Your task to perform on an android device: Go to location settings Image 0: 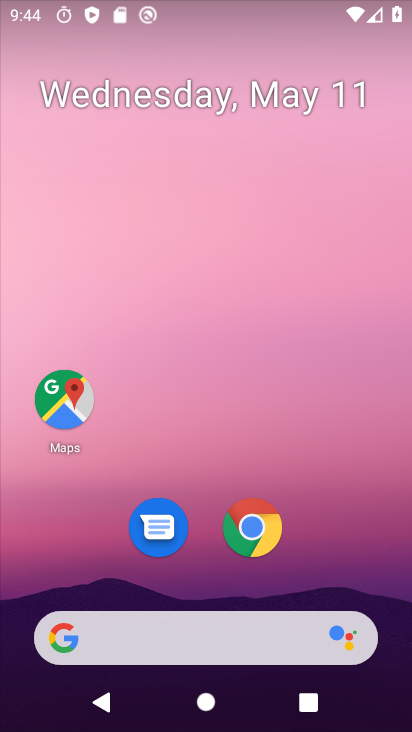
Step 0: drag from (236, 567) to (239, 114)
Your task to perform on an android device: Go to location settings Image 1: 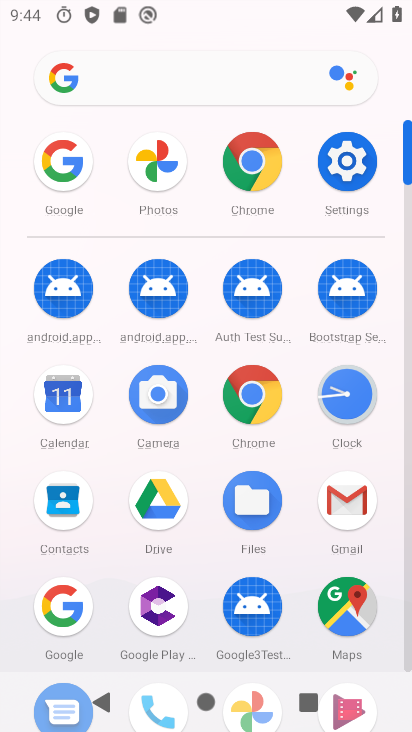
Step 1: click (335, 194)
Your task to perform on an android device: Go to location settings Image 2: 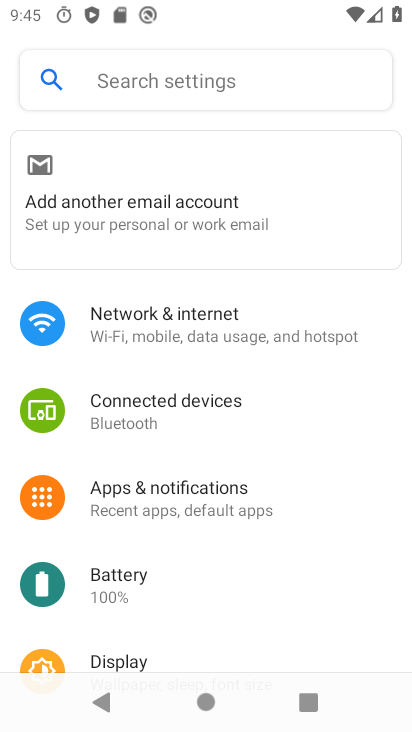
Step 2: drag from (236, 584) to (260, 271)
Your task to perform on an android device: Go to location settings Image 3: 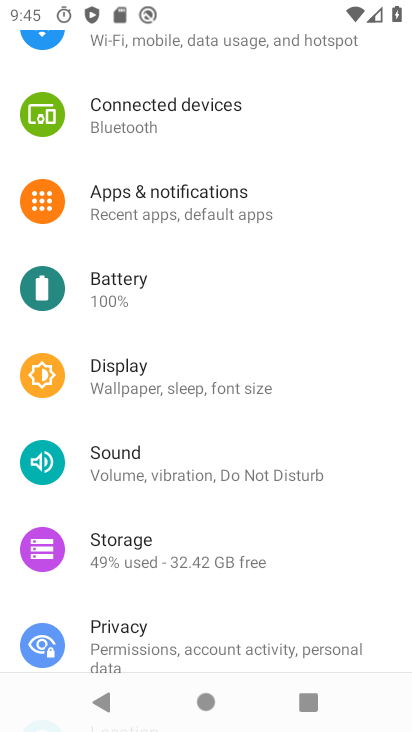
Step 3: drag from (218, 547) to (246, 274)
Your task to perform on an android device: Go to location settings Image 4: 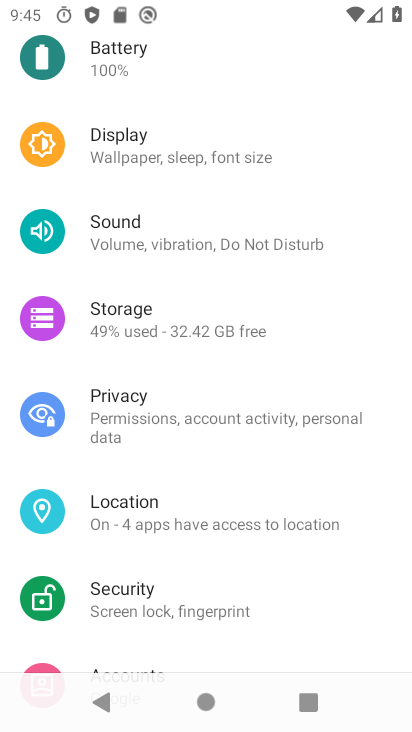
Step 4: click (226, 517)
Your task to perform on an android device: Go to location settings Image 5: 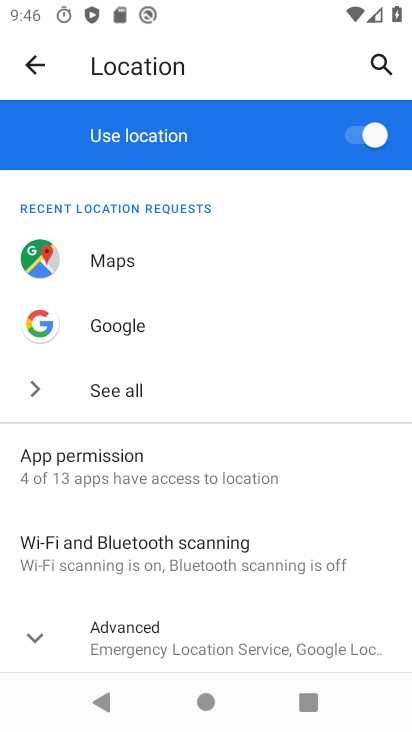
Step 5: drag from (230, 559) to (260, 340)
Your task to perform on an android device: Go to location settings Image 6: 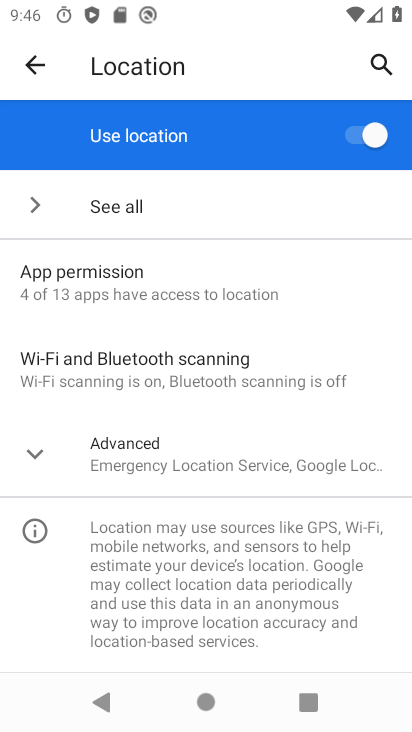
Step 6: click (220, 459)
Your task to perform on an android device: Go to location settings Image 7: 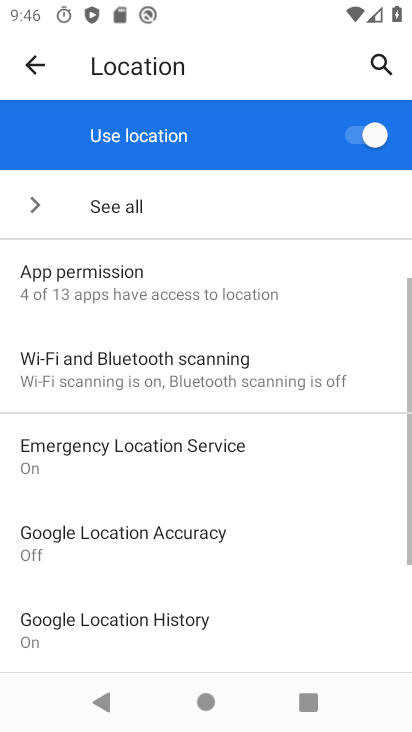
Step 7: task complete